Your task to perform on an android device: Go to Amazon Image 0: 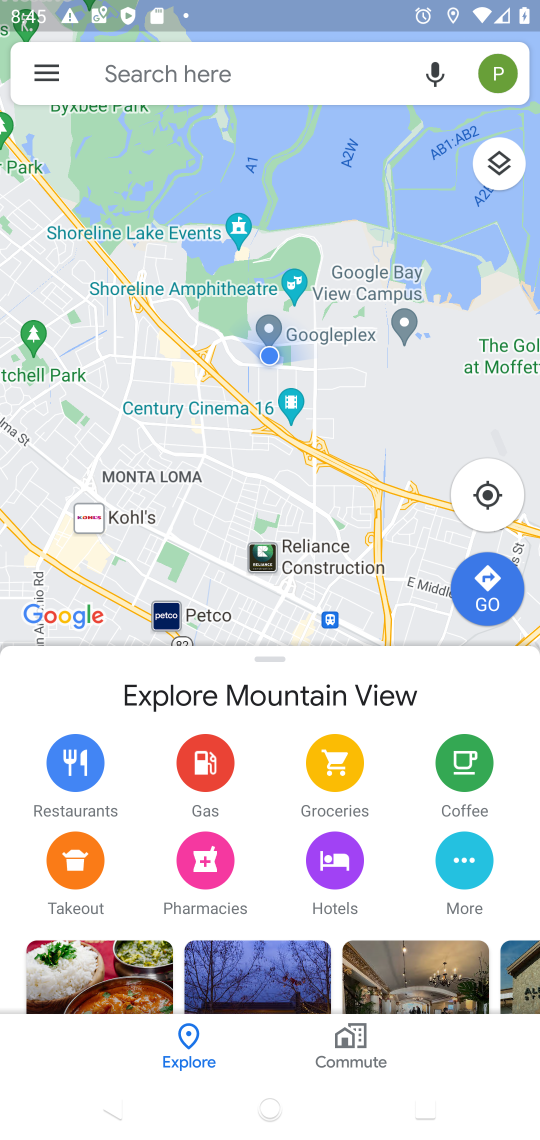
Step 0: press home button
Your task to perform on an android device: Go to Amazon Image 1: 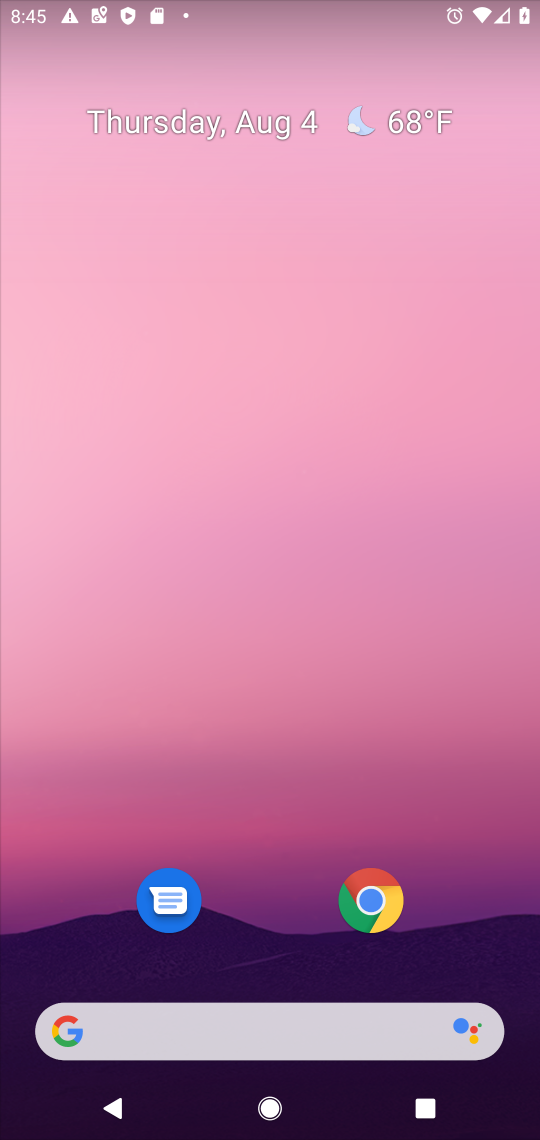
Step 1: click (368, 901)
Your task to perform on an android device: Go to Amazon Image 2: 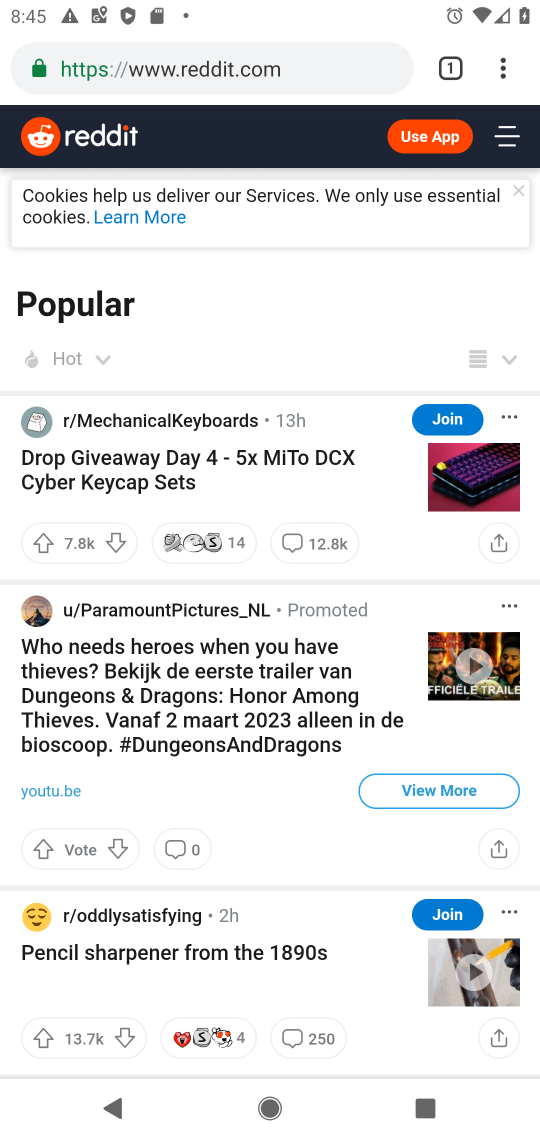
Step 2: click (337, 62)
Your task to perform on an android device: Go to Amazon Image 3: 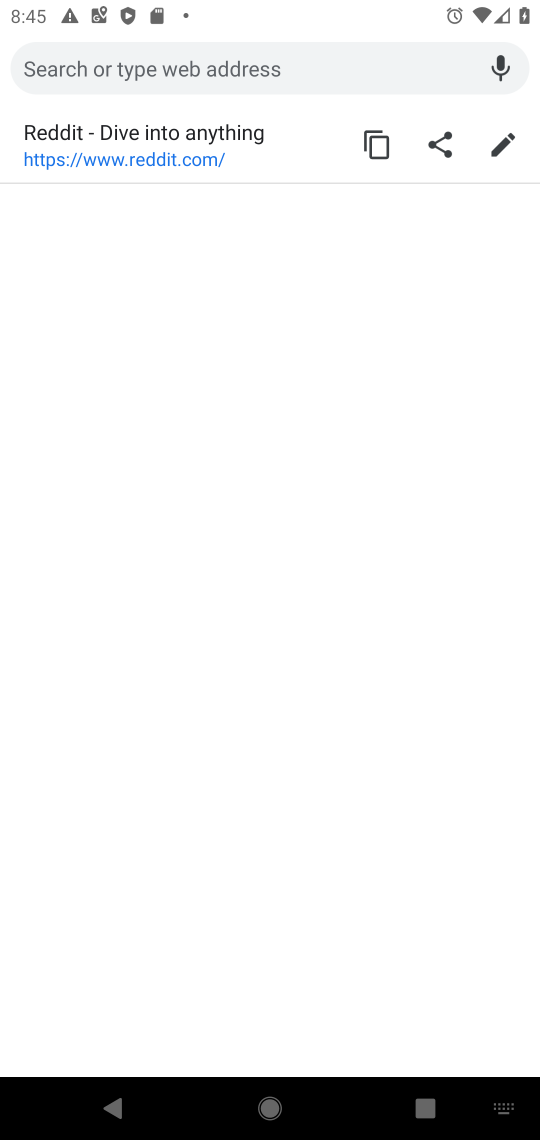
Step 3: type "Amazon"
Your task to perform on an android device: Go to Amazon Image 4: 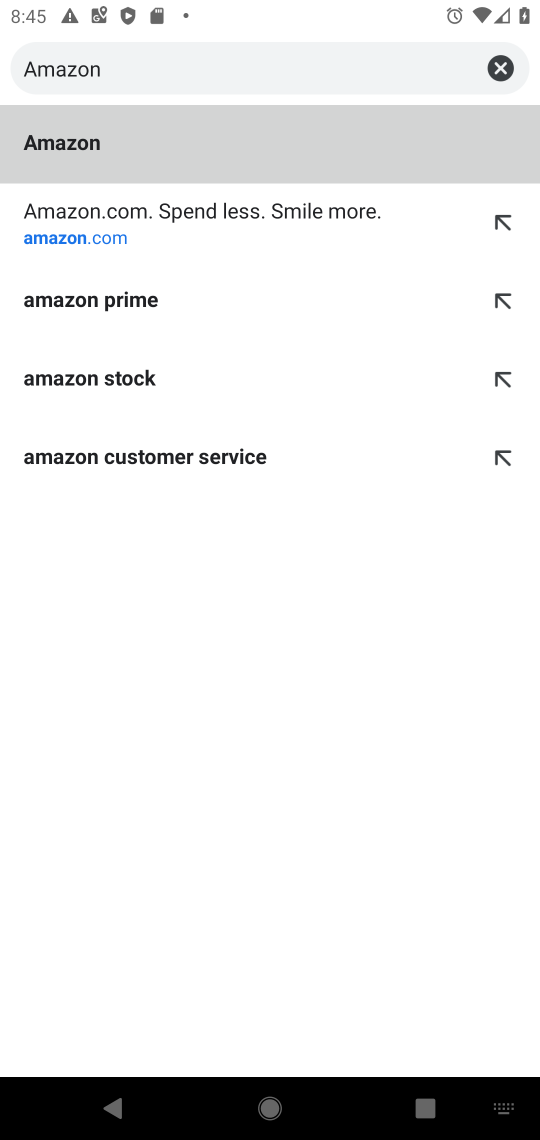
Step 4: click (147, 207)
Your task to perform on an android device: Go to Amazon Image 5: 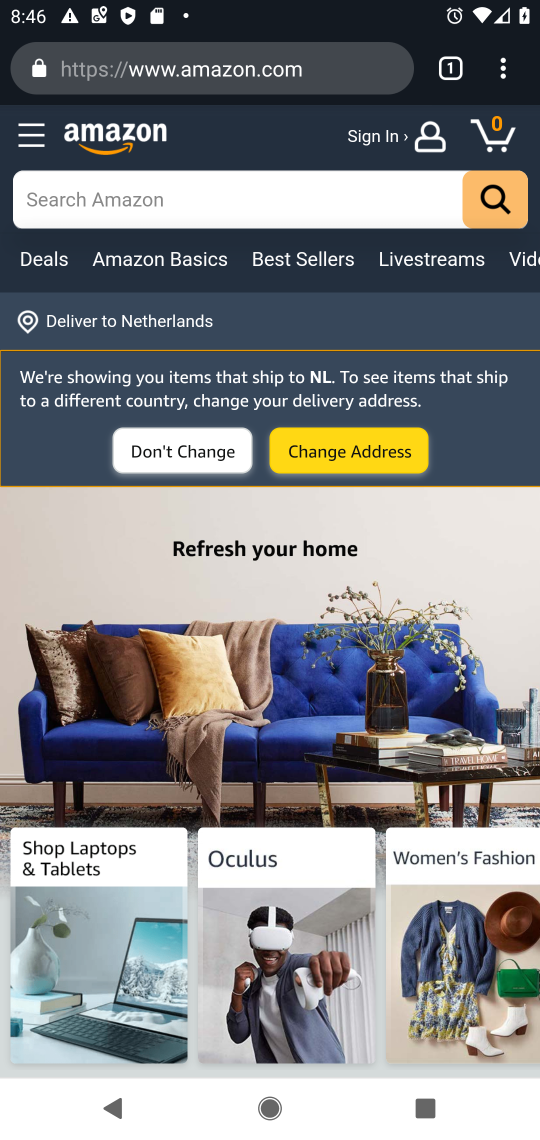
Step 5: task complete